Your task to perform on an android device: turn on bluetooth scan Image 0: 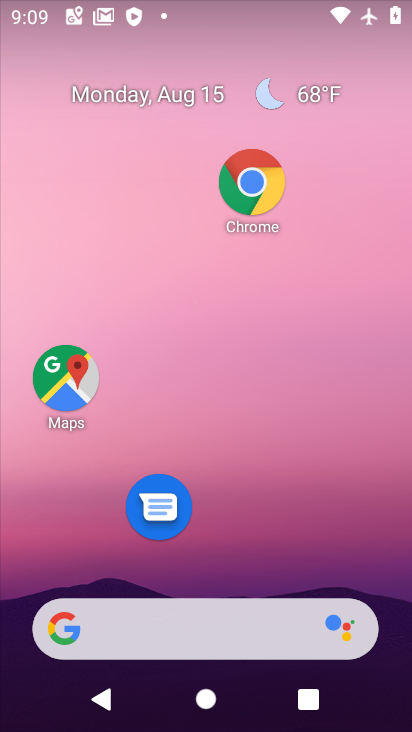
Step 0: click (348, 585)
Your task to perform on an android device: turn on bluetooth scan Image 1: 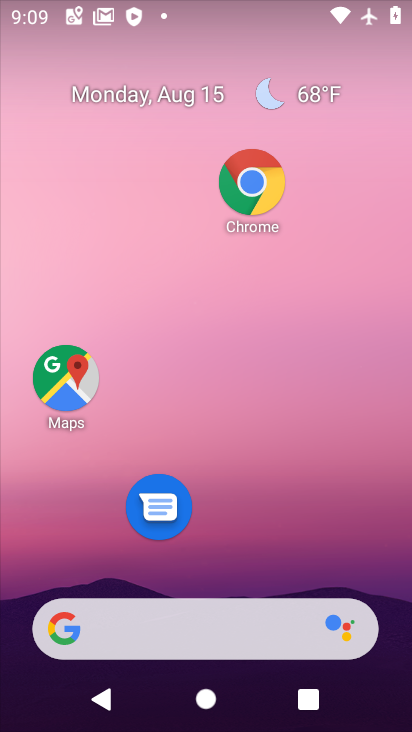
Step 1: drag from (348, 585) to (330, 31)
Your task to perform on an android device: turn on bluetooth scan Image 2: 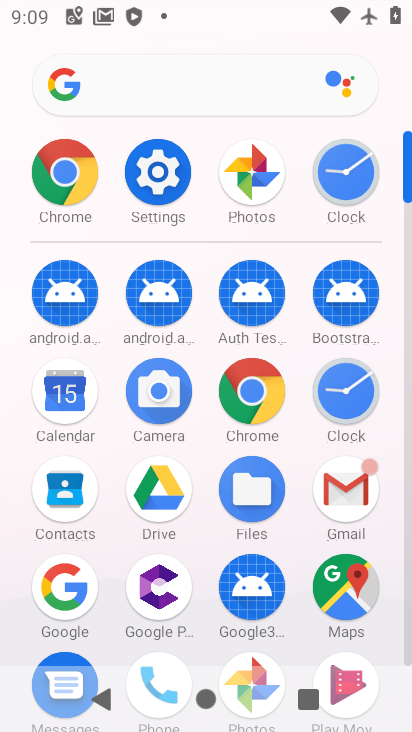
Step 2: click (178, 161)
Your task to perform on an android device: turn on bluetooth scan Image 3: 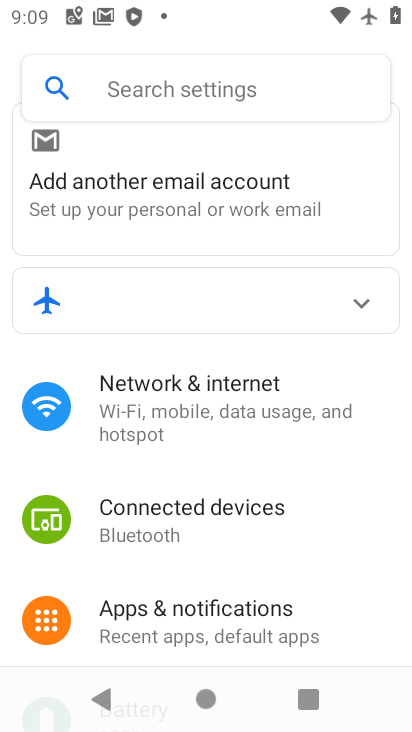
Step 3: drag from (212, 616) to (240, 90)
Your task to perform on an android device: turn on bluetooth scan Image 4: 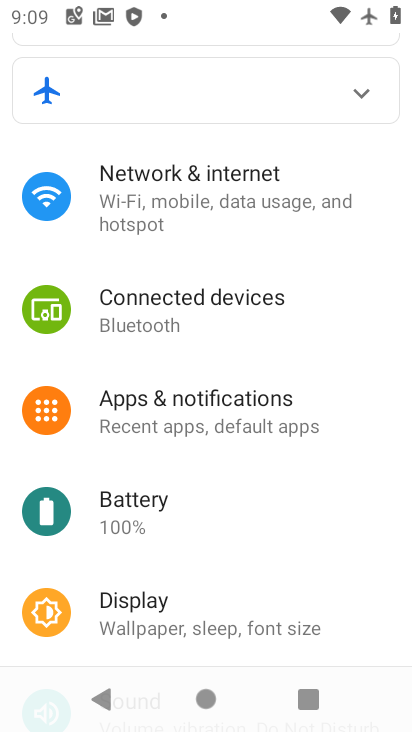
Step 4: drag from (204, 510) to (218, 59)
Your task to perform on an android device: turn on bluetooth scan Image 5: 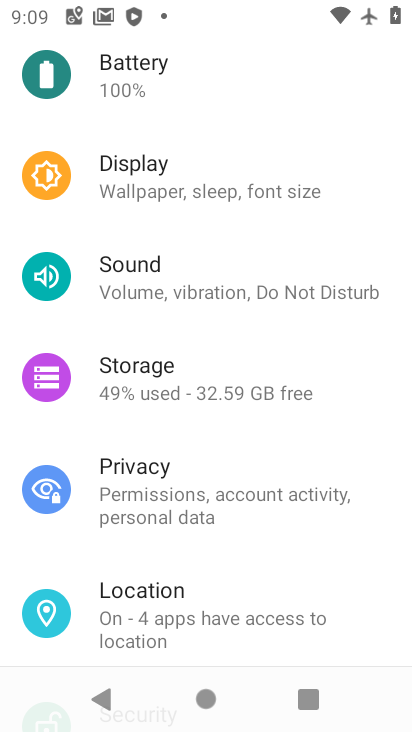
Step 5: click (147, 599)
Your task to perform on an android device: turn on bluetooth scan Image 6: 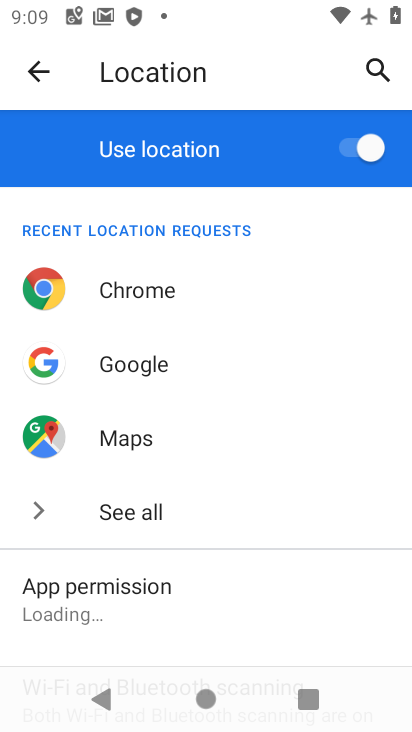
Step 6: drag from (175, 565) to (187, 307)
Your task to perform on an android device: turn on bluetooth scan Image 7: 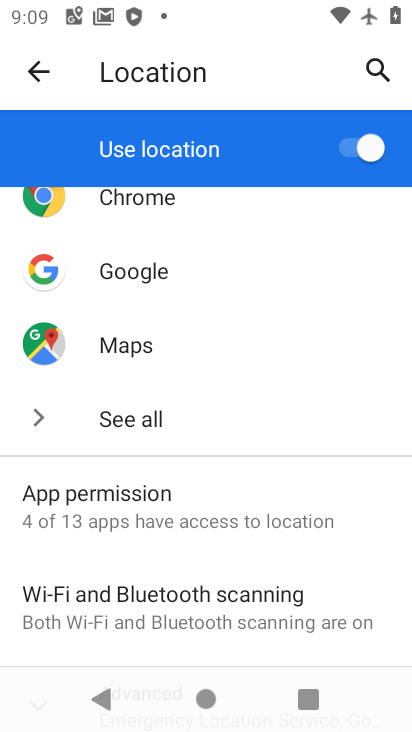
Step 7: click (154, 574)
Your task to perform on an android device: turn on bluetooth scan Image 8: 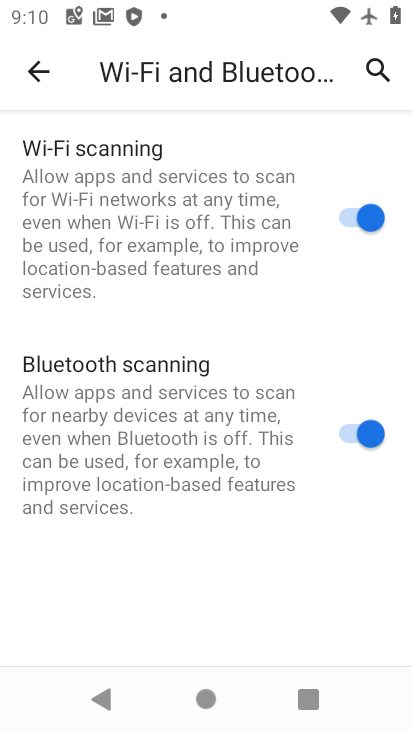
Step 8: task complete